Your task to perform on an android device: Open privacy settings Image 0: 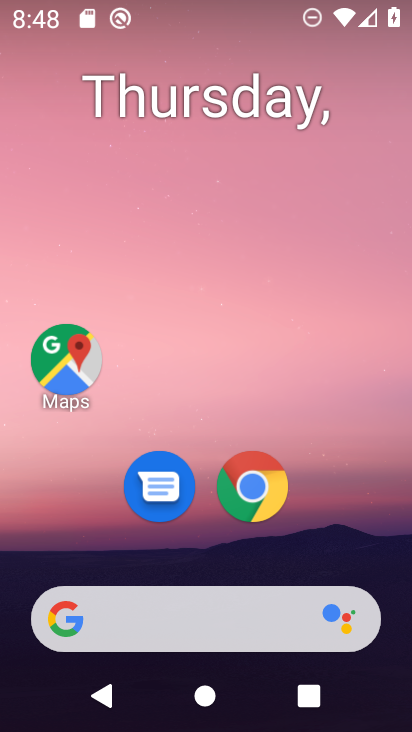
Step 0: click (275, 494)
Your task to perform on an android device: Open privacy settings Image 1: 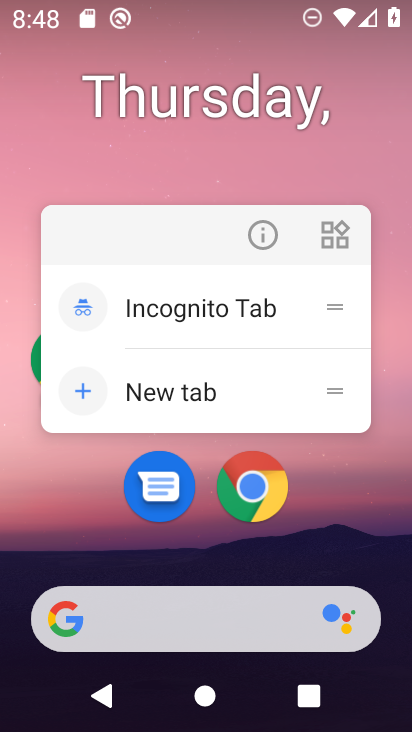
Step 1: click (255, 494)
Your task to perform on an android device: Open privacy settings Image 2: 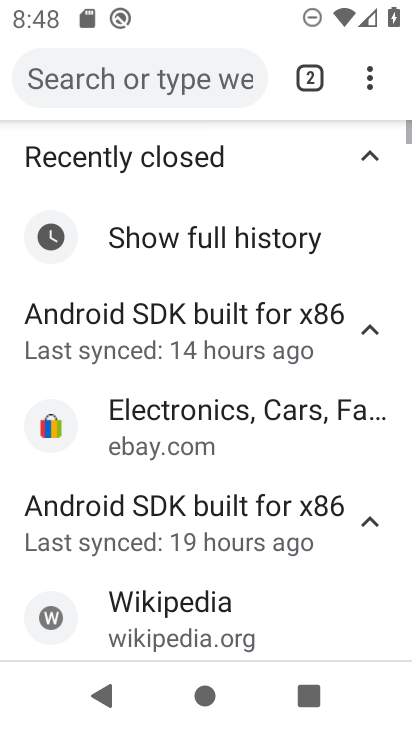
Step 2: drag from (365, 82) to (129, 543)
Your task to perform on an android device: Open privacy settings Image 3: 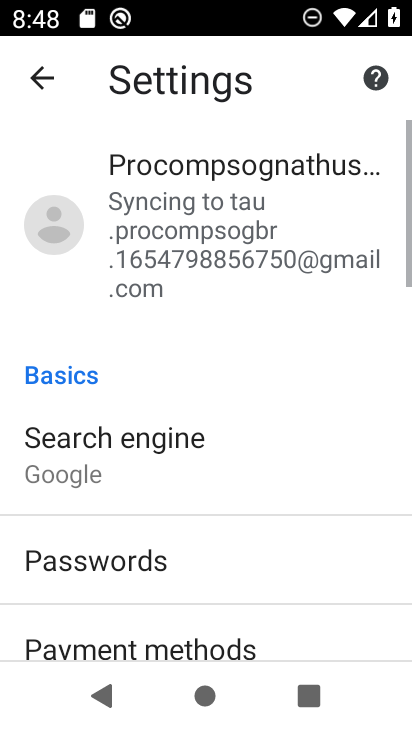
Step 3: drag from (151, 591) to (255, 71)
Your task to perform on an android device: Open privacy settings Image 4: 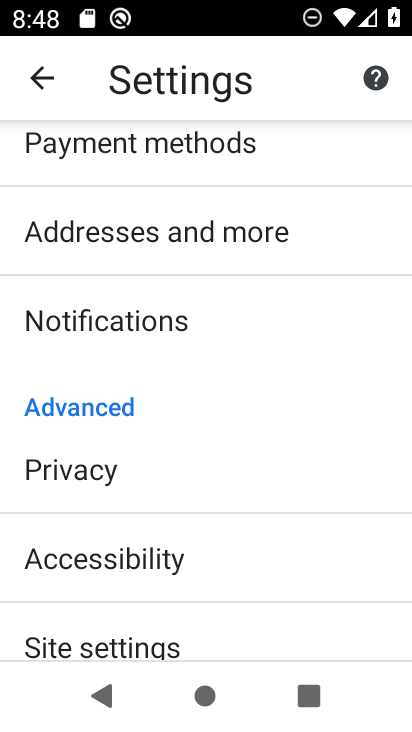
Step 4: click (68, 473)
Your task to perform on an android device: Open privacy settings Image 5: 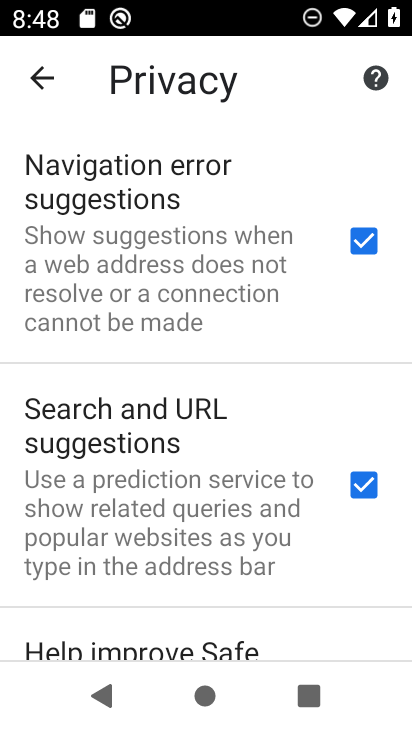
Step 5: task complete